Your task to perform on an android device: Clear all items from cart on costco.com. Image 0: 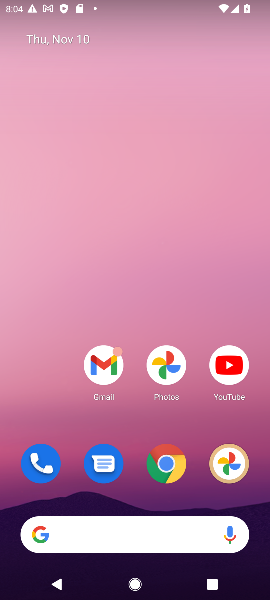
Step 0: click (174, 462)
Your task to perform on an android device: Clear all items from cart on costco.com. Image 1: 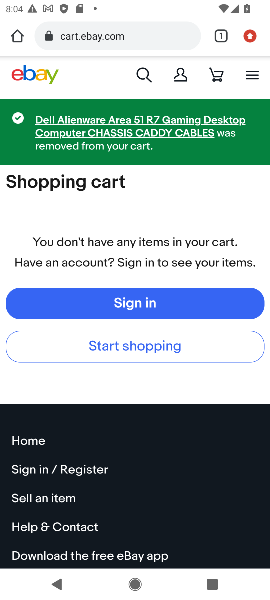
Step 1: click (168, 29)
Your task to perform on an android device: Clear all items from cart on costco.com. Image 2: 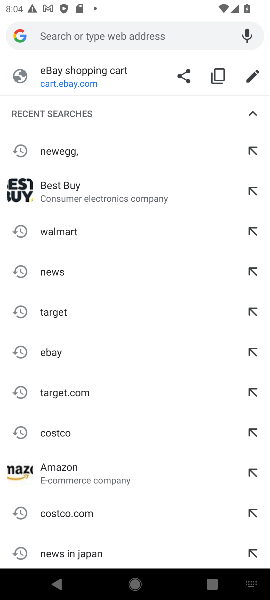
Step 2: click (52, 432)
Your task to perform on an android device: Clear all items from cart on costco.com. Image 3: 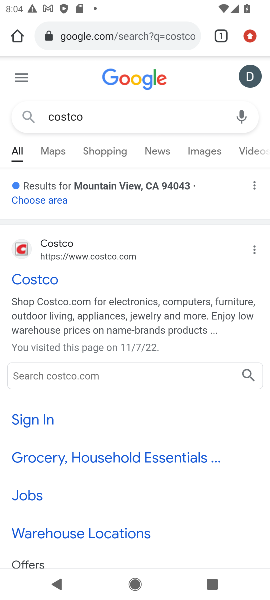
Step 3: click (37, 278)
Your task to perform on an android device: Clear all items from cart on costco.com. Image 4: 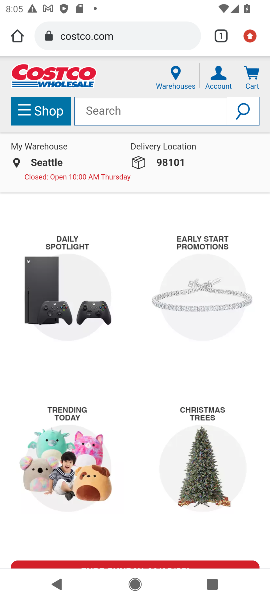
Step 4: click (249, 71)
Your task to perform on an android device: Clear all items from cart on costco.com. Image 5: 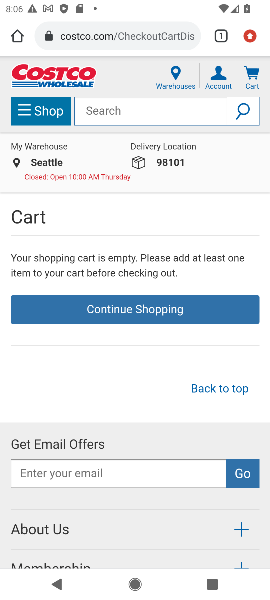
Step 5: task complete